Your task to perform on an android device: change text size in settings app Image 0: 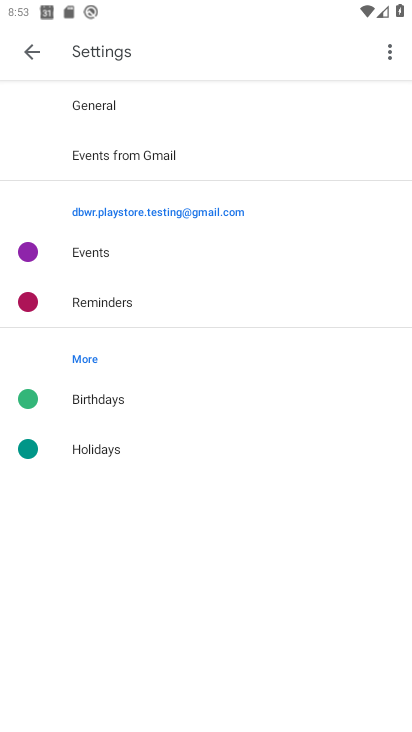
Step 0: drag from (139, 610) to (234, 277)
Your task to perform on an android device: change text size in settings app Image 1: 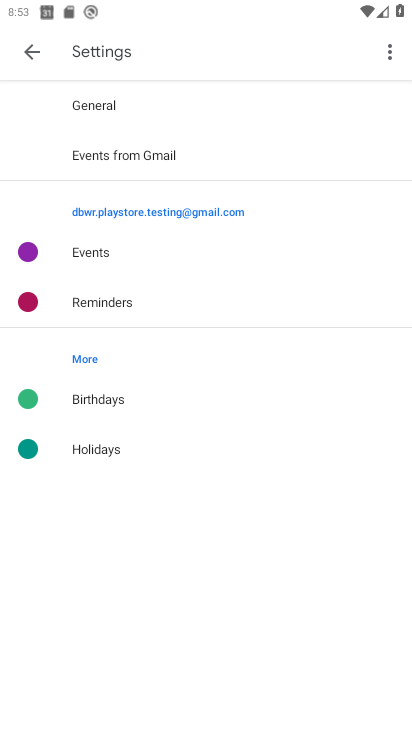
Step 1: press home button
Your task to perform on an android device: change text size in settings app Image 2: 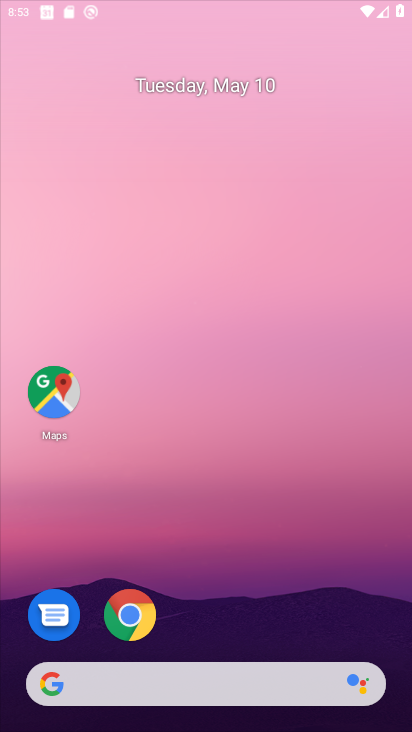
Step 2: drag from (166, 635) to (217, 95)
Your task to perform on an android device: change text size in settings app Image 3: 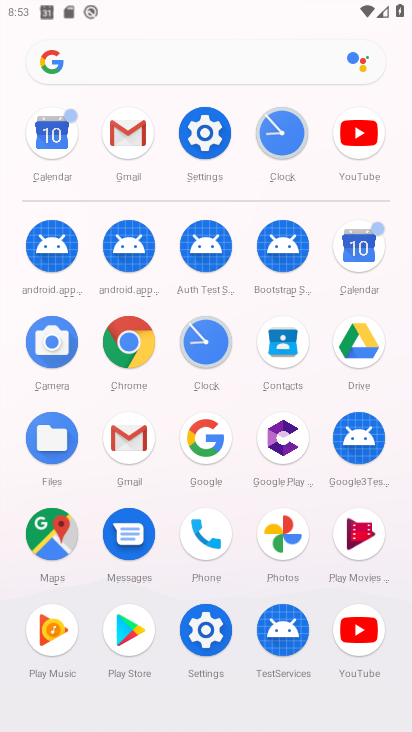
Step 3: click (209, 129)
Your task to perform on an android device: change text size in settings app Image 4: 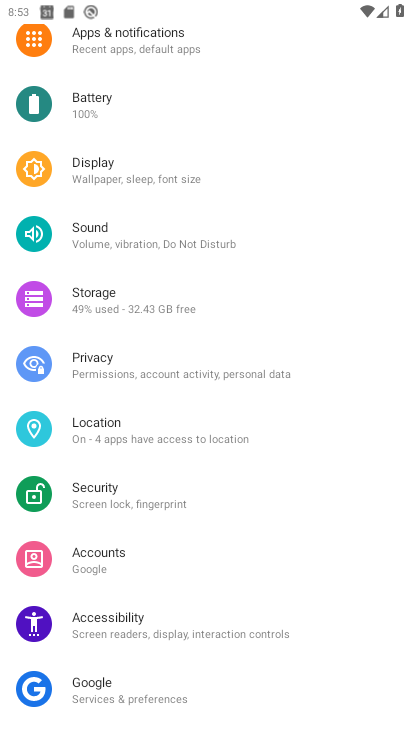
Step 4: drag from (157, 608) to (209, 179)
Your task to perform on an android device: change text size in settings app Image 5: 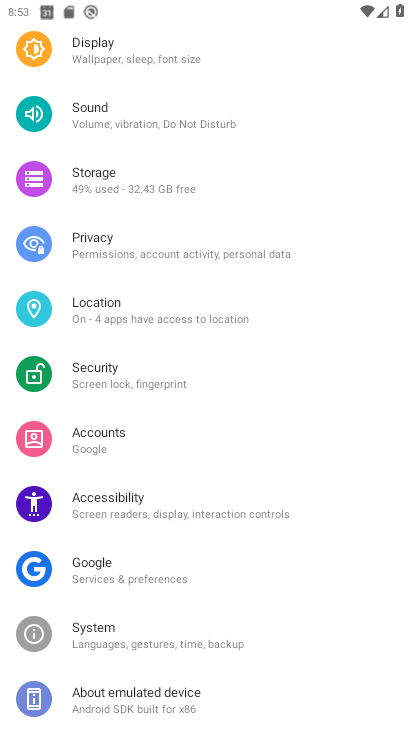
Step 5: drag from (212, 163) to (199, 620)
Your task to perform on an android device: change text size in settings app Image 6: 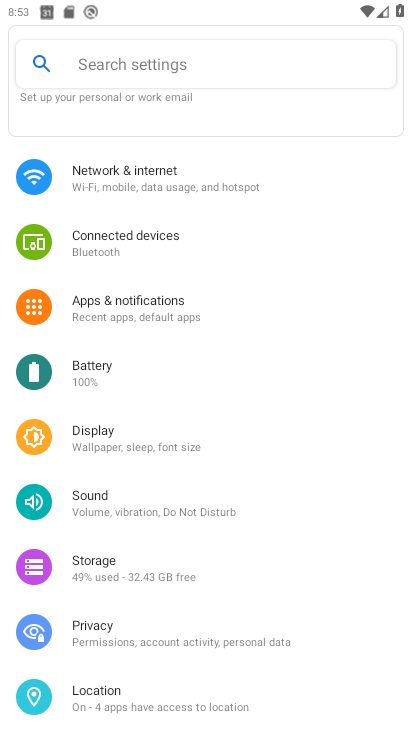
Step 6: click (147, 457)
Your task to perform on an android device: change text size in settings app Image 7: 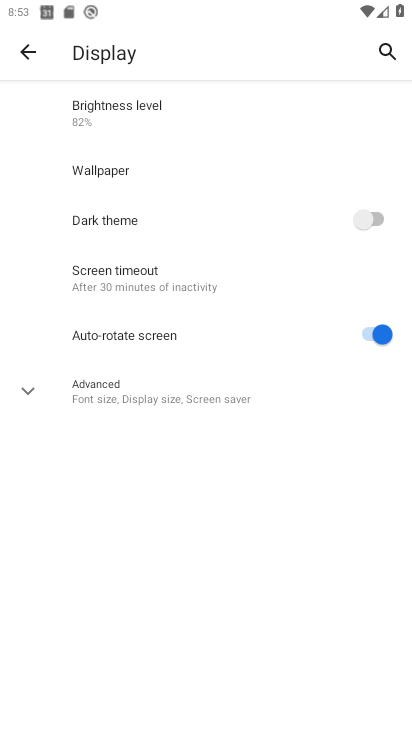
Step 7: click (95, 386)
Your task to perform on an android device: change text size in settings app Image 8: 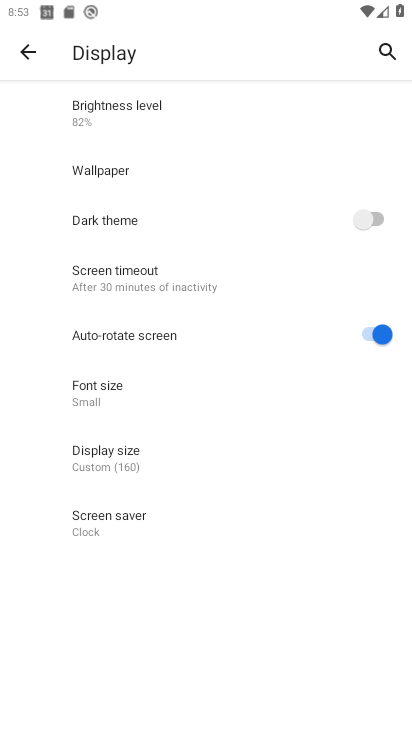
Step 8: click (138, 395)
Your task to perform on an android device: change text size in settings app Image 9: 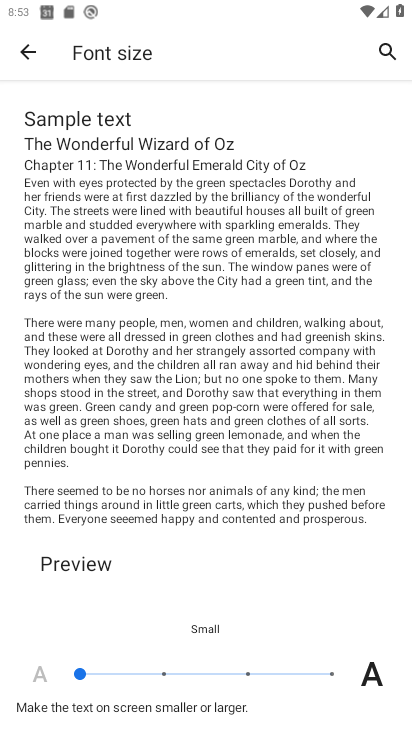
Step 9: drag from (229, 583) to (248, 227)
Your task to perform on an android device: change text size in settings app Image 10: 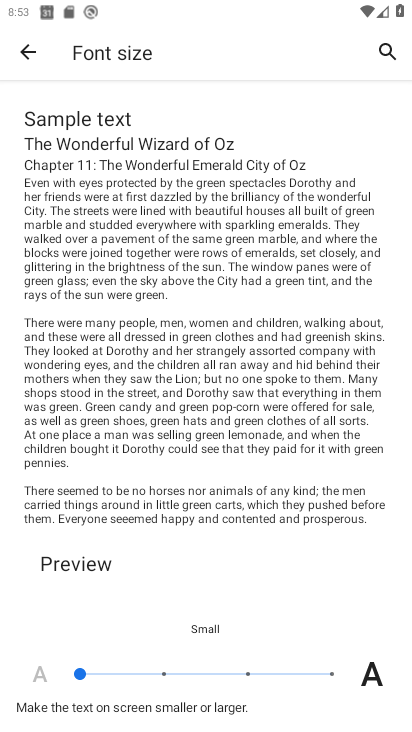
Step 10: click (151, 678)
Your task to perform on an android device: change text size in settings app Image 11: 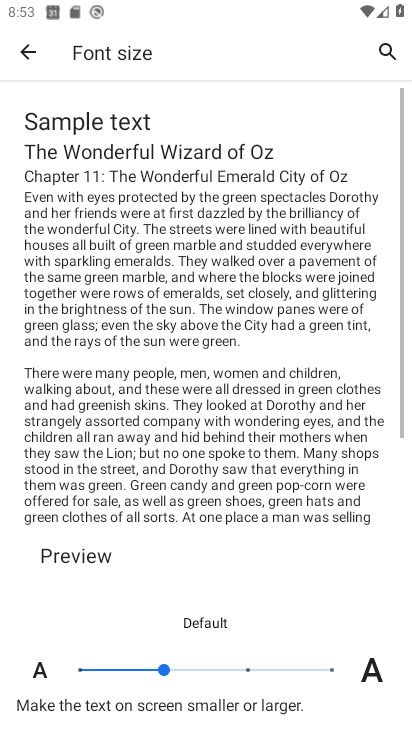
Step 11: task complete